Your task to perform on an android device: What is the news today? Image 0: 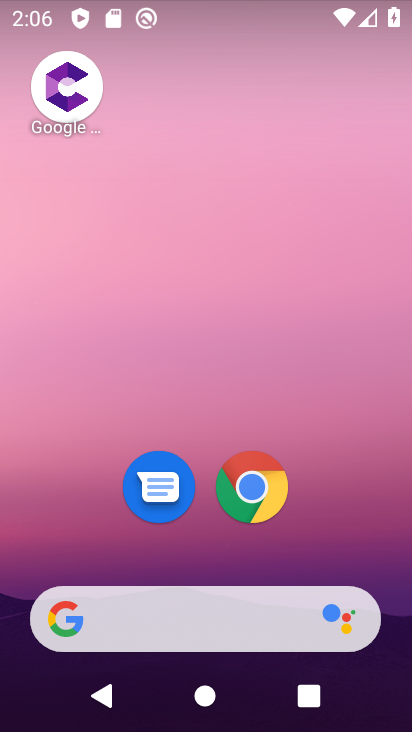
Step 0: drag from (252, 440) to (240, 60)
Your task to perform on an android device: What is the news today? Image 1: 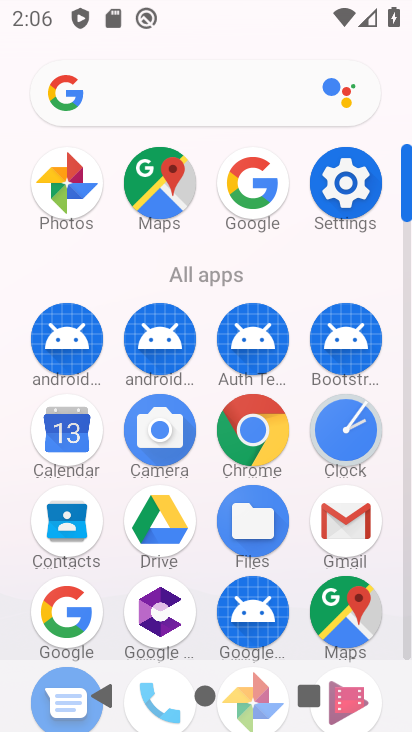
Step 1: click (257, 184)
Your task to perform on an android device: What is the news today? Image 2: 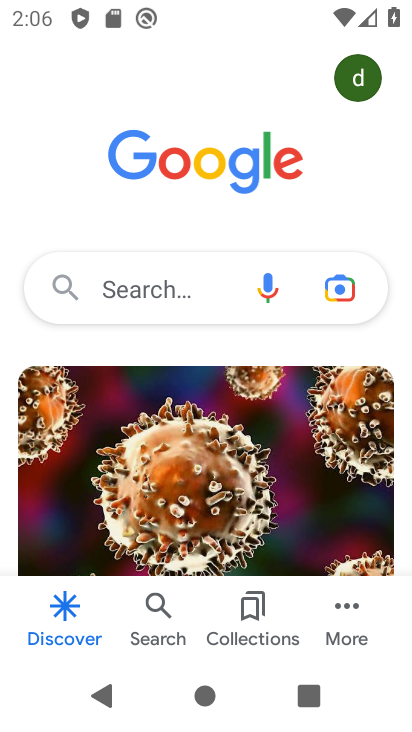
Step 2: click (178, 282)
Your task to perform on an android device: What is the news today? Image 3: 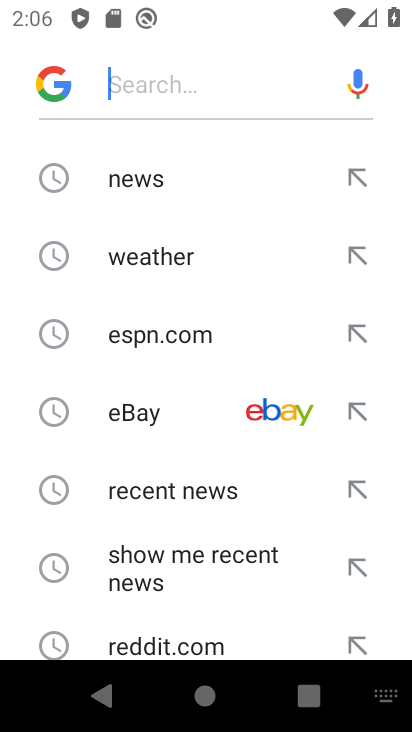
Step 3: click (136, 156)
Your task to perform on an android device: What is the news today? Image 4: 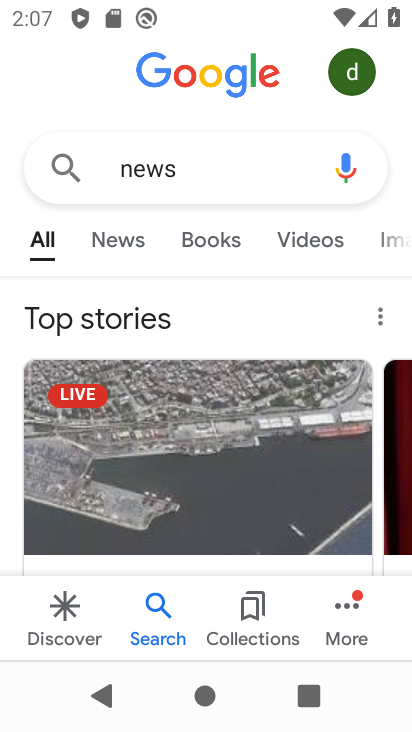
Step 4: task complete